Your task to perform on an android device: toggle priority inbox in the gmail app Image 0: 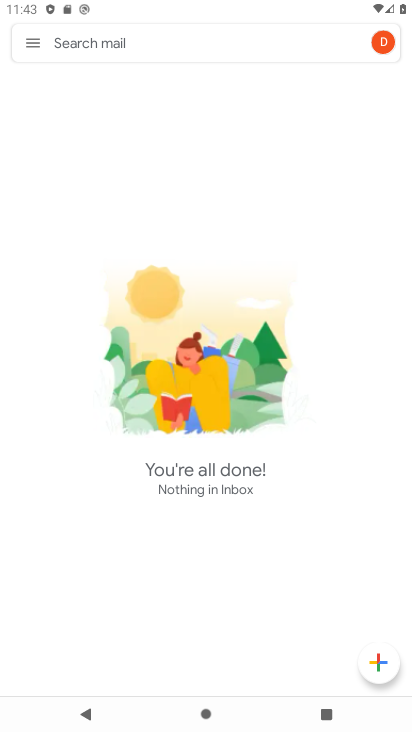
Step 0: press home button
Your task to perform on an android device: toggle priority inbox in the gmail app Image 1: 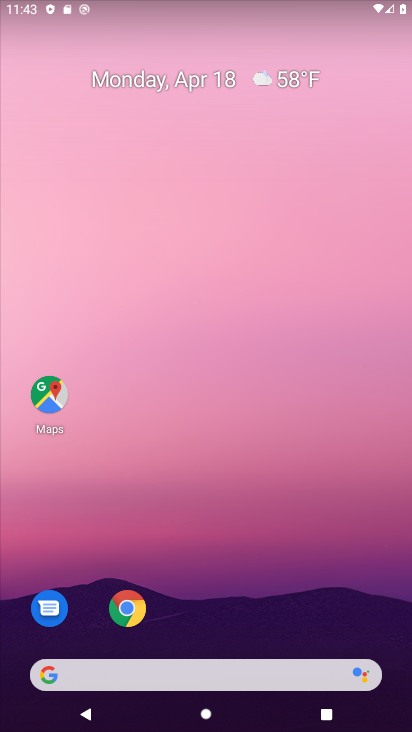
Step 1: drag from (273, 588) to (250, 158)
Your task to perform on an android device: toggle priority inbox in the gmail app Image 2: 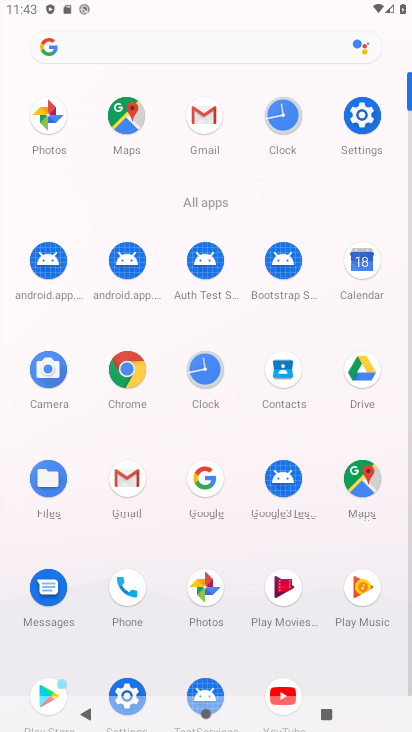
Step 2: click (209, 107)
Your task to perform on an android device: toggle priority inbox in the gmail app Image 3: 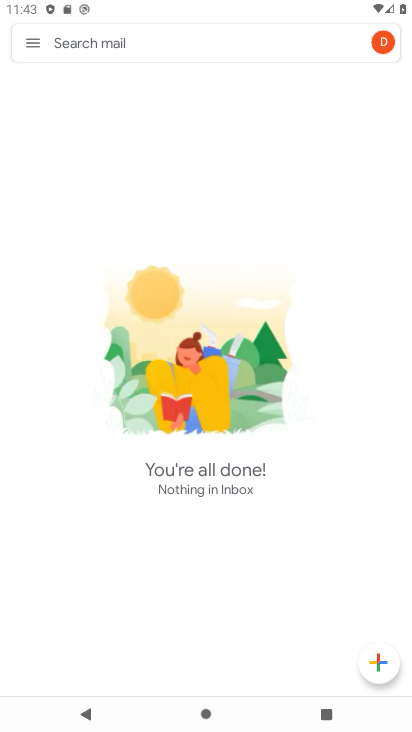
Step 3: click (28, 43)
Your task to perform on an android device: toggle priority inbox in the gmail app Image 4: 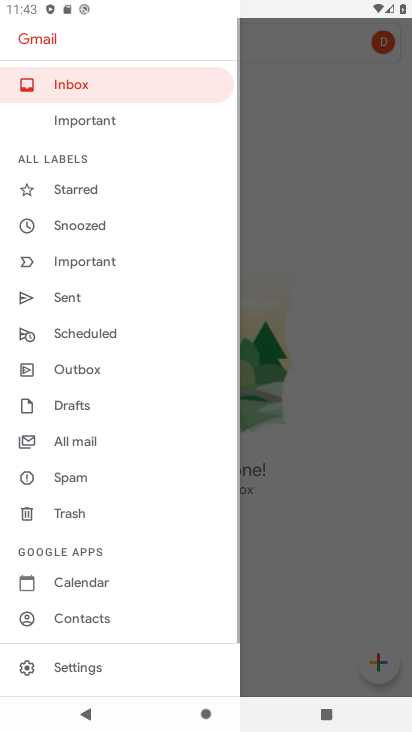
Step 4: drag from (112, 603) to (166, 110)
Your task to perform on an android device: toggle priority inbox in the gmail app Image 5: 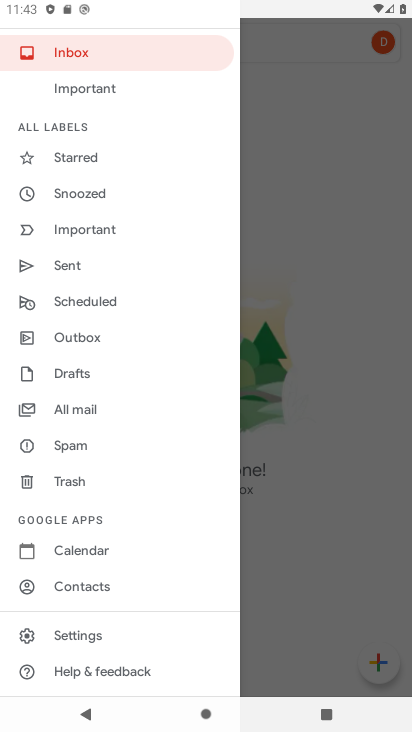
Step 5: click (117, 639)
Your task to perform on an android device: toggle priority inbox in the gmail app Image 6: 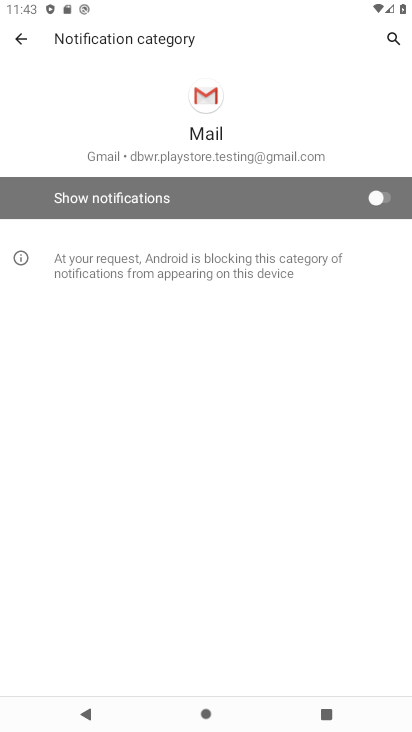
Step 6: click (22, 37)
Your task to perform on an android device: toggle priority inbox in the gmail app Image 7: 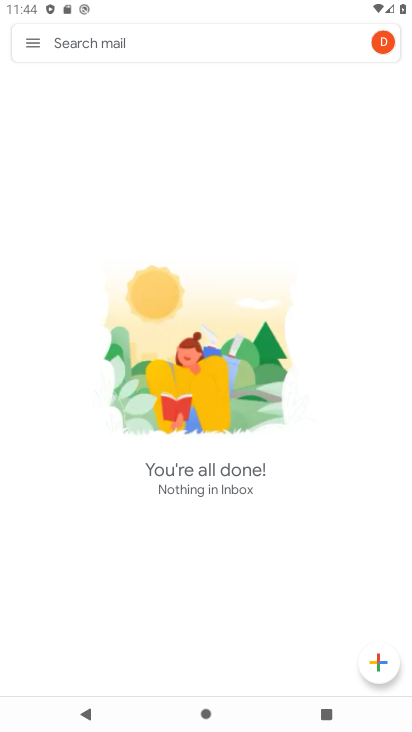
Step 7: click (31, 45)
Your task to perform on an android device: toggle priority inbox in the gmail app Image 8: 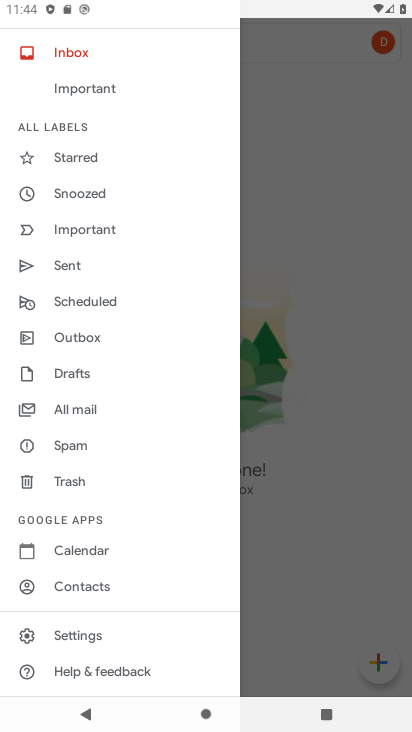
Step 8: click (87, 629)
Your task to perform on an android device: toggle priority inbox in the gmail app Image 9: 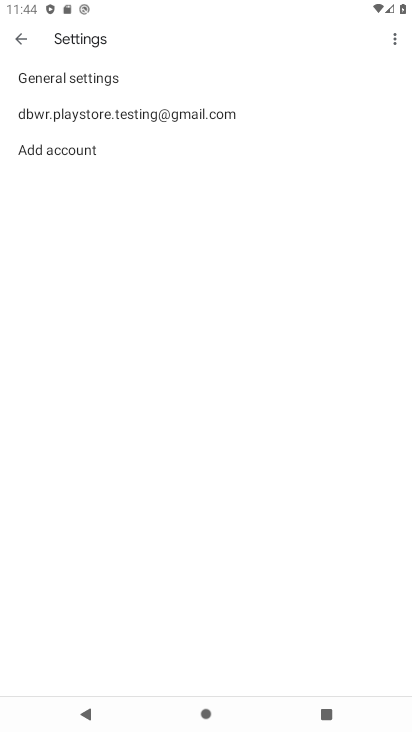
Step 9: click (118, 128)
Your task to perform on an android device: toggle priority inbox in the gmail app Image 10: 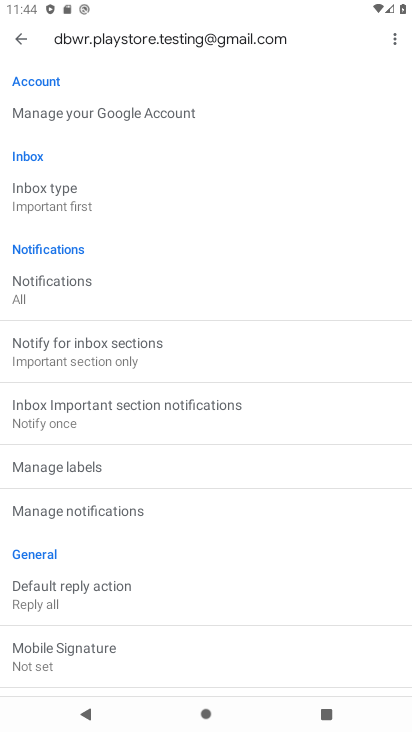
Step 10: click (68, 192)
Your task to perform on an android device: toggle priority inbox in the gmail app Image 11: 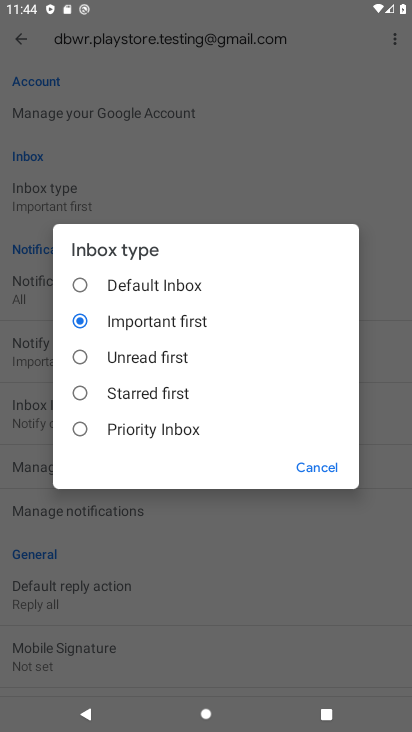
Step 11: click (133, 434)
Your task to perform on an android device: toggle priority inbox in the gmail app Image 12: 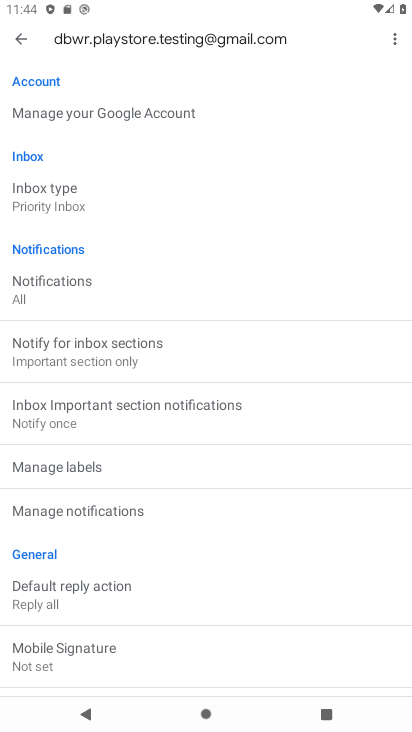
Step 12: task complete